Your task to perform on an android device: set the stopwatch Image 0: 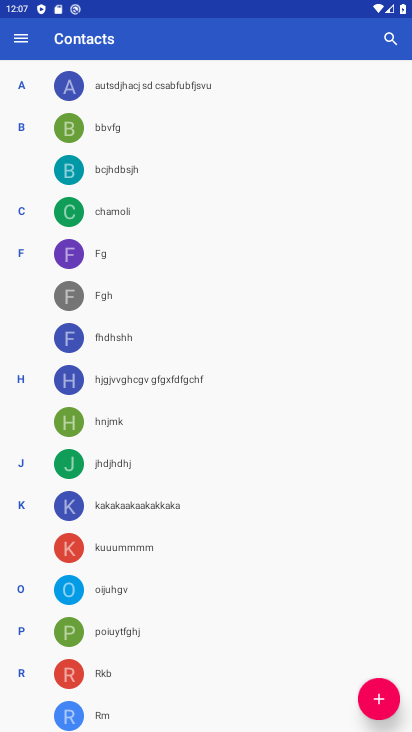
Step 0: press home button
Your task to perform on an android device: set the stopwatch Image 1: 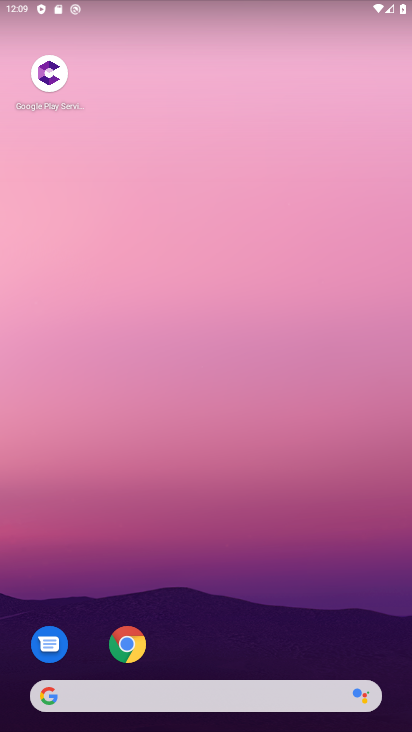
Step 1: drag from (335, 620) to (138, 30)
Your task to perform on an android device: set the stopwatch Image 2: 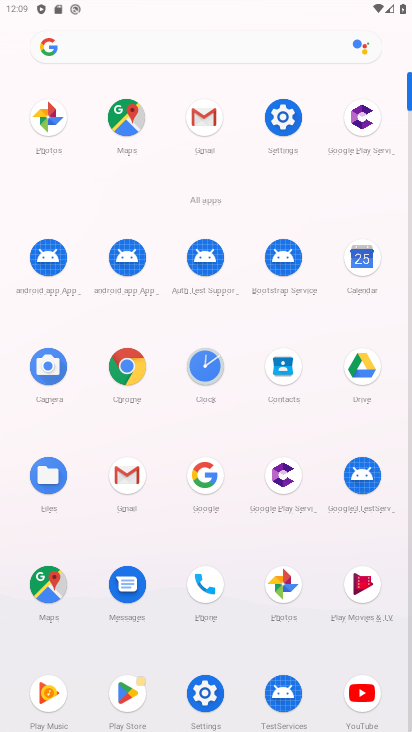
Step 2: click (191, 365)
Your task to perform on an android device: set the stopwatch Image 3: 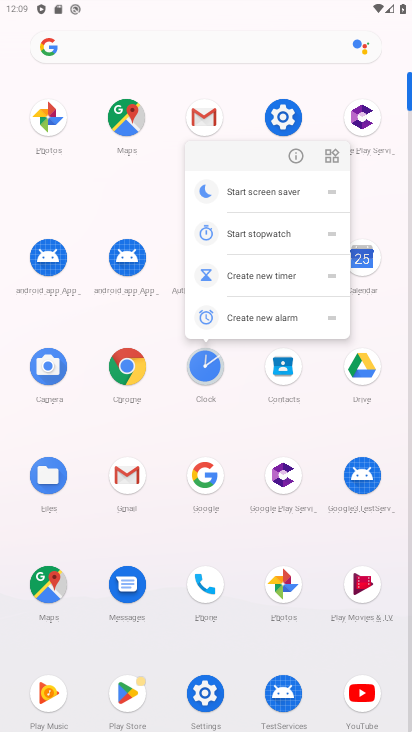
Step 3: click (218, 369)
Your task to perform on an android device: set the stopwatch Image 4: 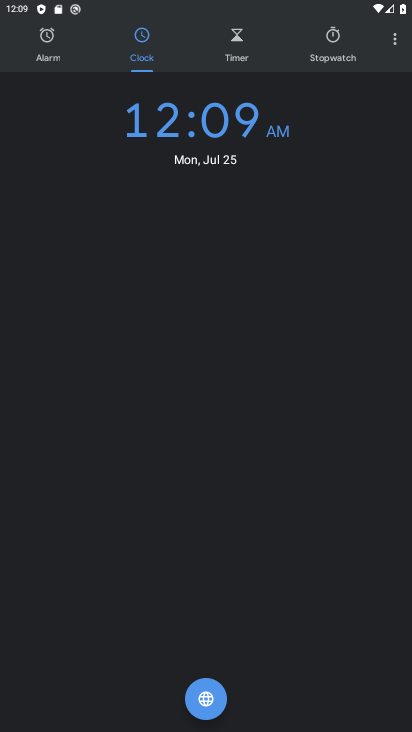
Step 4: click (333, 43)
Your task to perform on an android device: set the stopwatch Image 5: 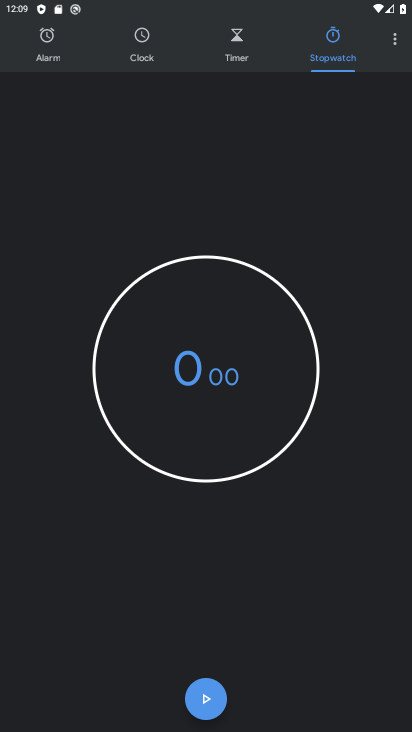
Step 5: task complete